Your task to perform on an android device: open chrome and create a bookmark for the current page Image 0: 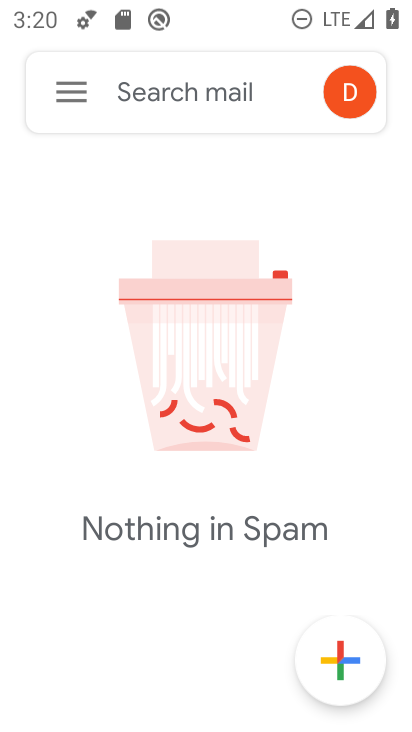
Step 0: press home button
Your task to perform on an android device: open chrome and create a bookmark for the current page Image 1: 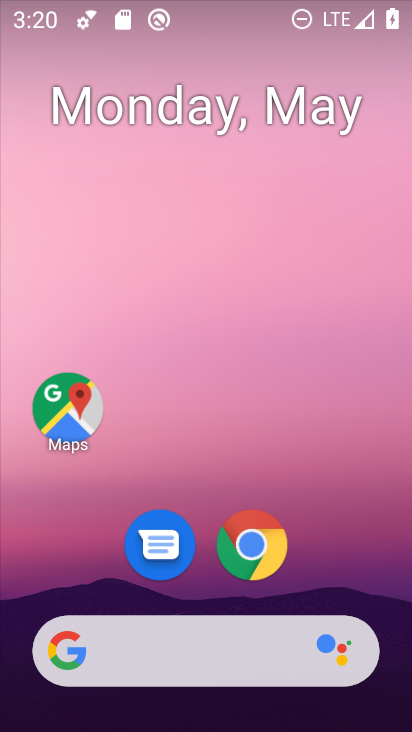
Step 1: click (284, 546)
Your task to perform on an android device: open chrome and create a bookmark for the current page Image 2: 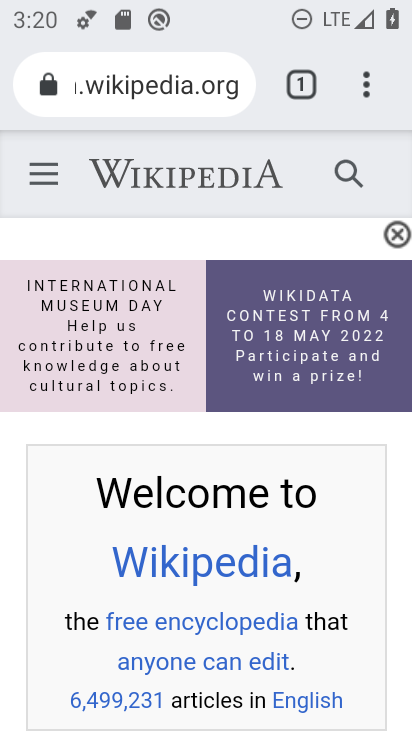
Step 2: drag from (365, 92) to (236, 317)
Your task to perform on an android device: open chrome and create a bookmark for the current page Image 3: 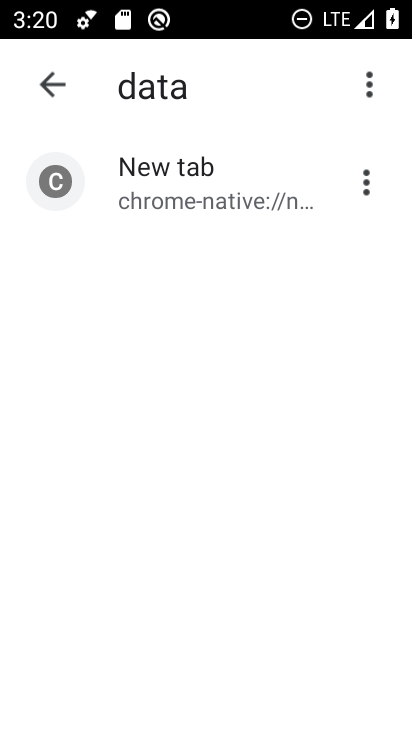
Step 3: click (45, 81)
Your task to perform on an android device: open chrome and create a bookmark for the current page Image 4: 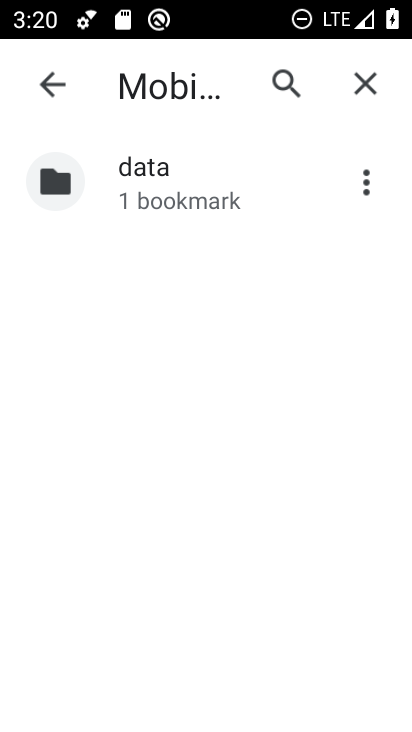
Step 4: click (375, 78)
Your task to perform on an android device: open chrome and create a bookmark for the current page Image 5: 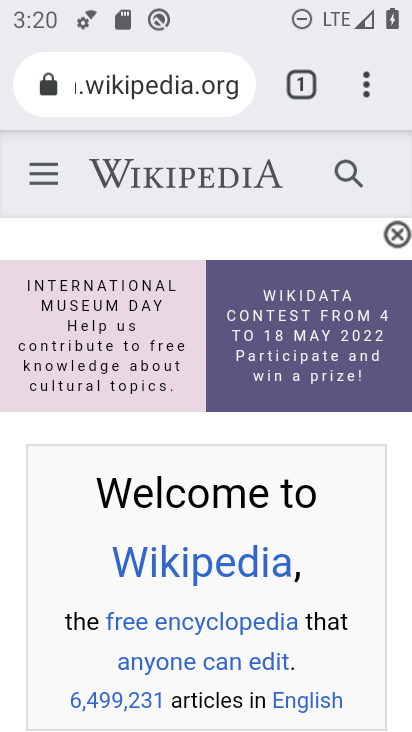
Step 5: task complete